Your task to perform on an android device: Open ESPN.com Image 0: 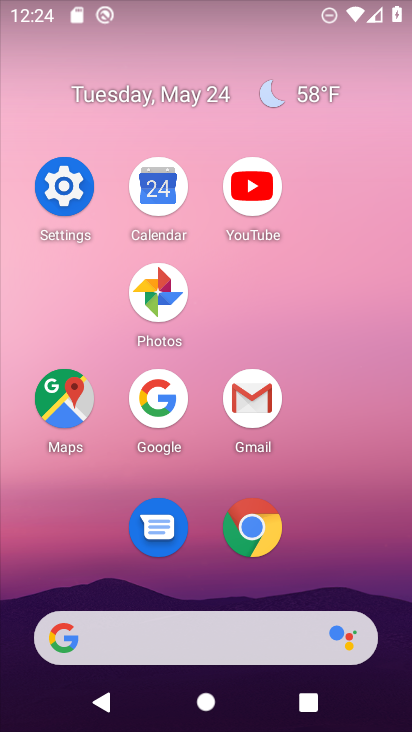
Step 0: click (271, 515)
Your task to perform on an android device: Open ESPN.com Image 1: 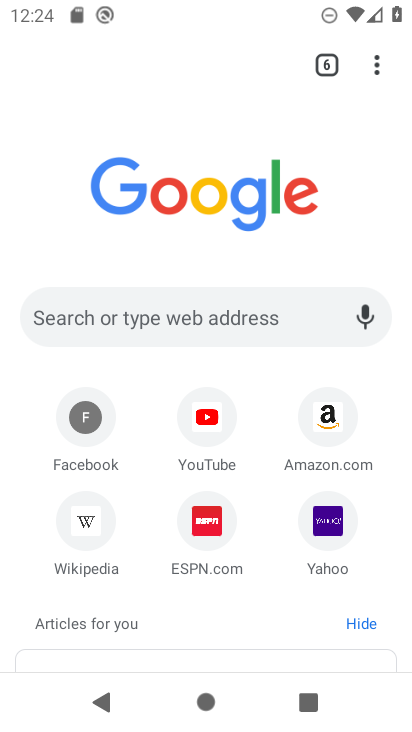
Step 1: click (217, 515)
Your task to perform on an android device: Open ESPN.com Image 2: 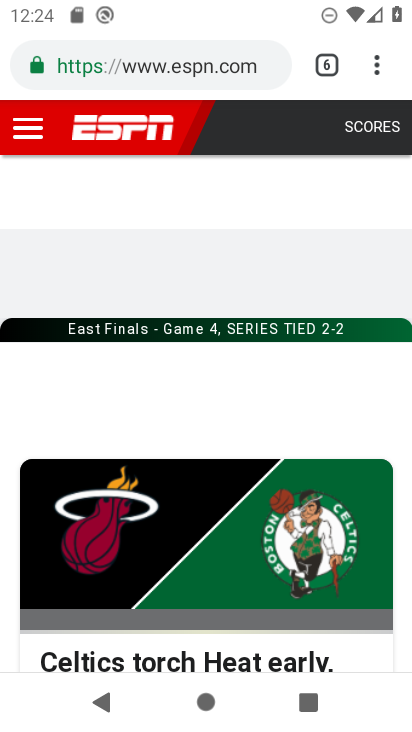
Step 2: task complete